Your task to perform on an android device: Show me popular videos on Youtube Image 0: 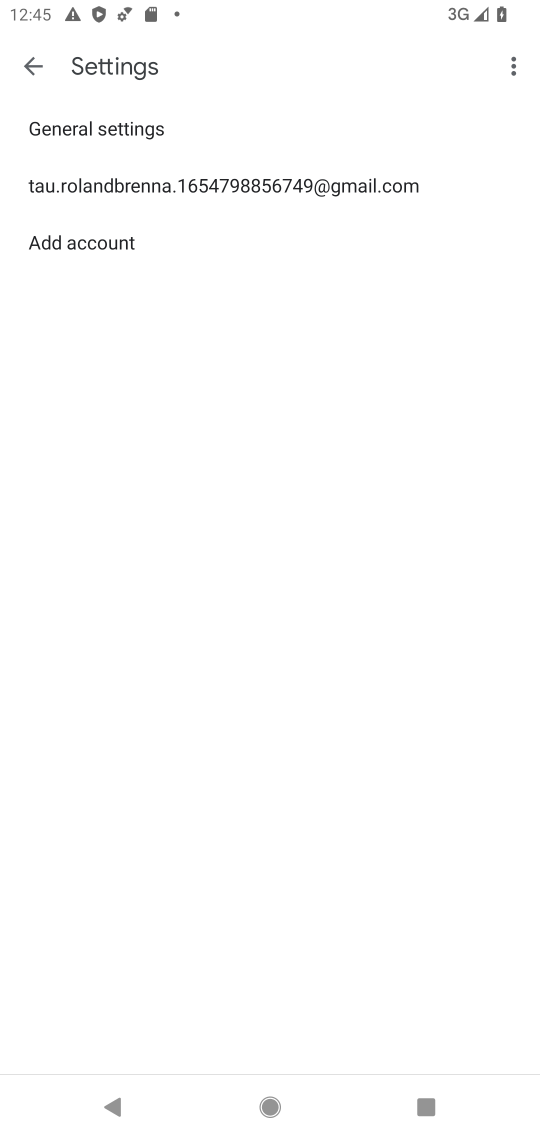
Step 0: click (219, 165)
Your task to perform on an android device: Show me popular videos on Youtube Image 1: 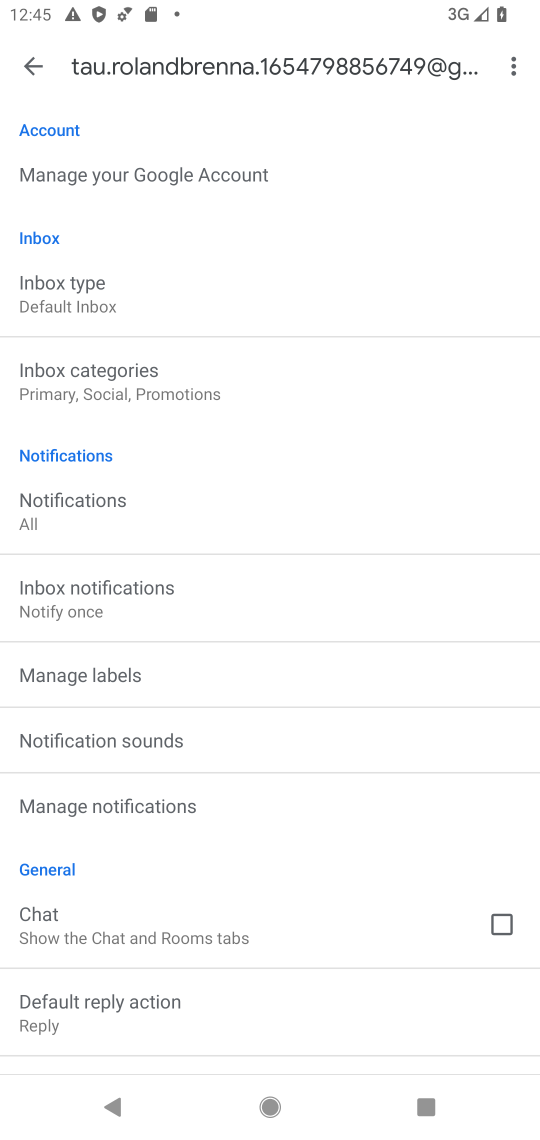
Step 1: drag from (305, 428) to (408, 127)
Your task to perform on an android device: Show me popular videos on Youtube Image 2: 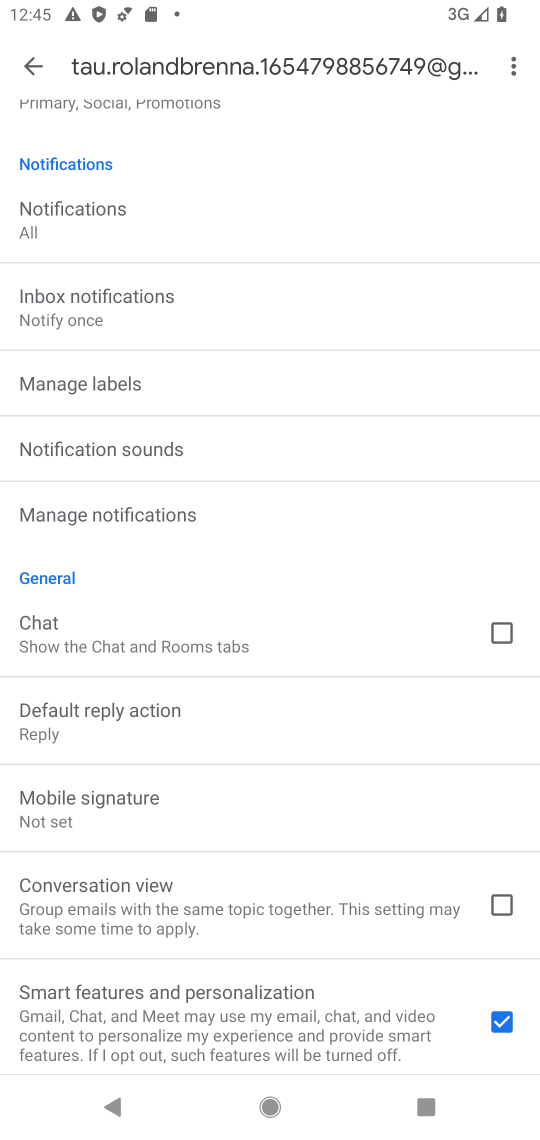
Step 2: press home button
Your task to perform on an android device: Show me popular videos on Youtube Image 3: 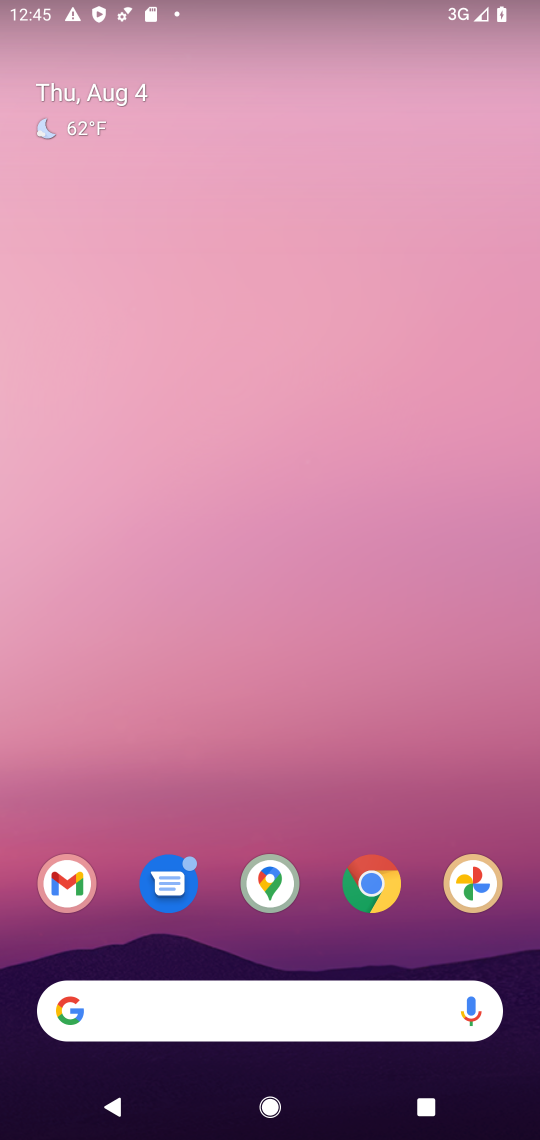
Step 3: drag from (238, 984) to (327, 423)
Your task to perform on an android device: Show me popular videos on Youtube Image 4: 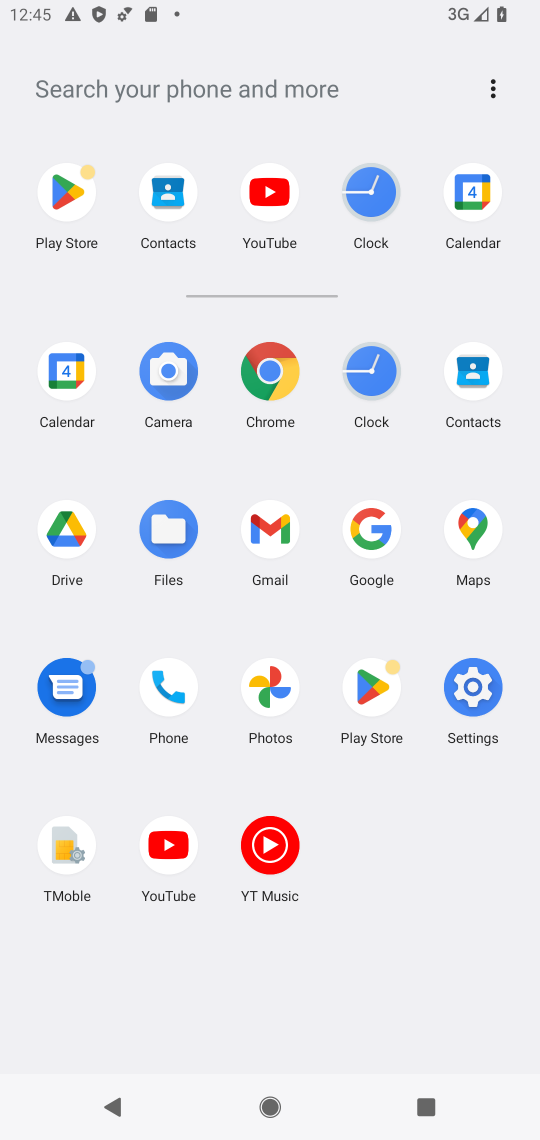
Step 4: click (161, 839)
Your task to perform on an android device: Show me popular videos on Youtube Image 5: 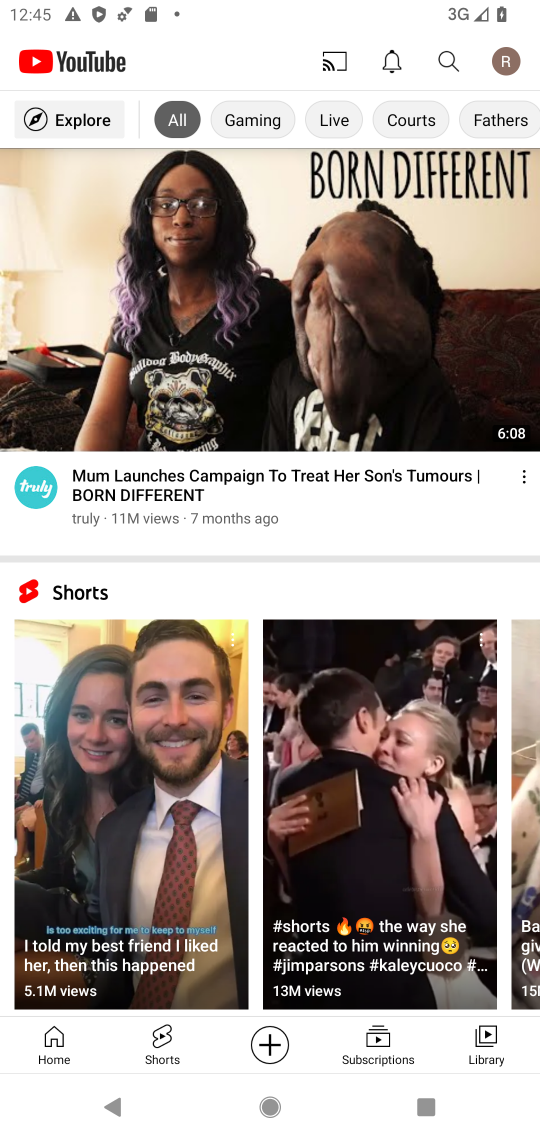
Step 5: task complete